Your task to perform on an android device: Open internet settings Image 0: 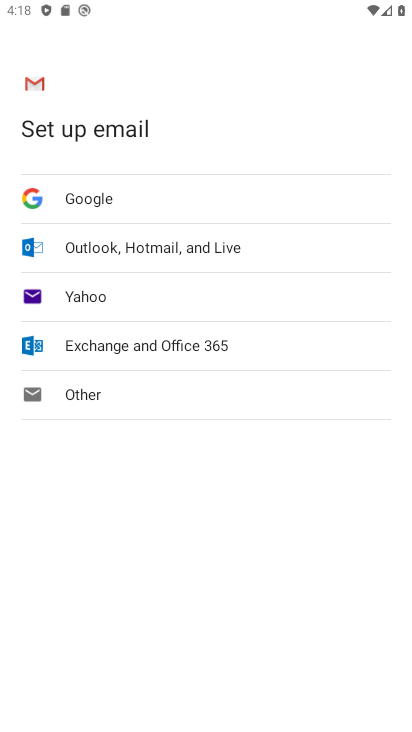
Step 0: drag from (125, 135) to (31, 416)
Your task to perform on an android device: Open internet settings Image 1: 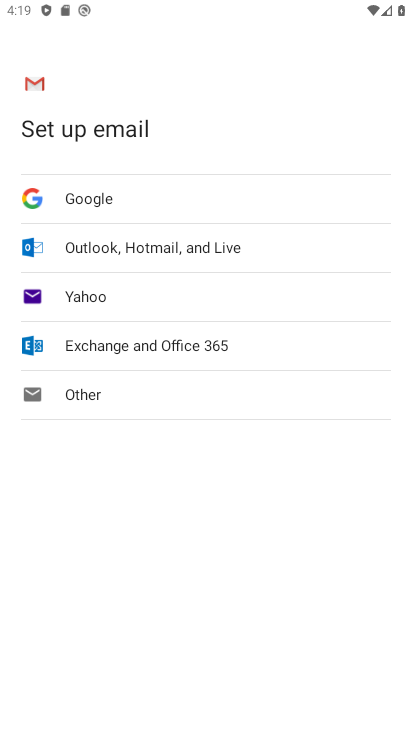
Step 1: drag from (112, 57) to (60, 518)
Your task to perform on an android device: Open internet settings Image 2: 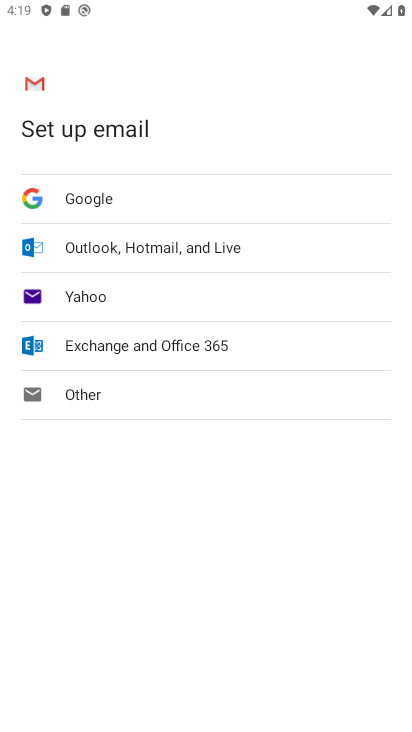
Step 2: drag from (110, 5) to (251, 419)
Your task to perform on an android device: Open internet settings Image 3: 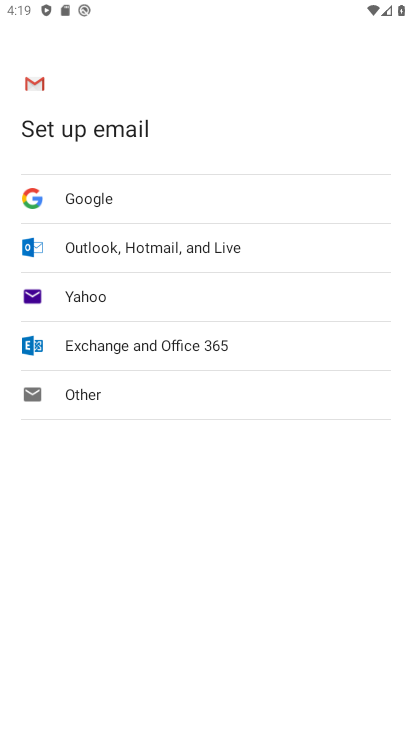
Step 3: drag from (122, 13) to (222, 541)
Your task to perform on an android device: Open internet settings Image 4: 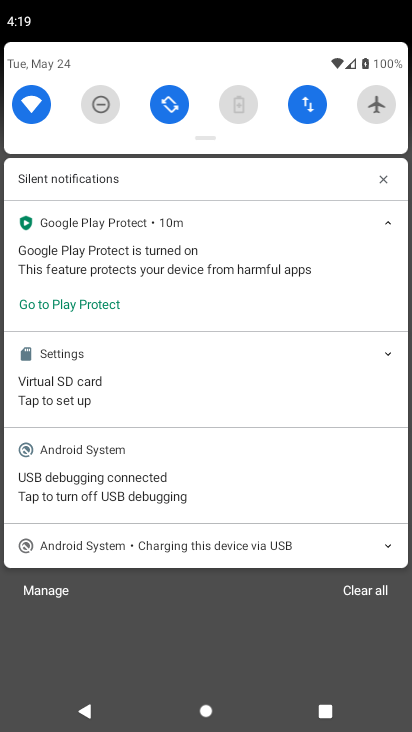
Step 4: click (313, 97)
Your task to perform on an android device: Open internet settings Image 5: 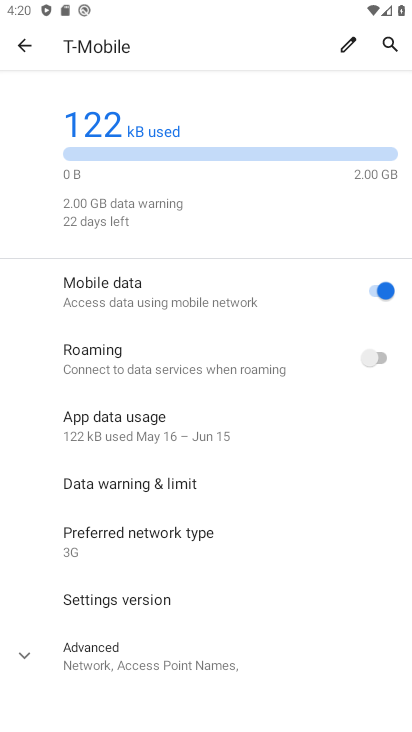
Step 5: task complete